Your task to perform on an android device: Go to Maps Image 0: 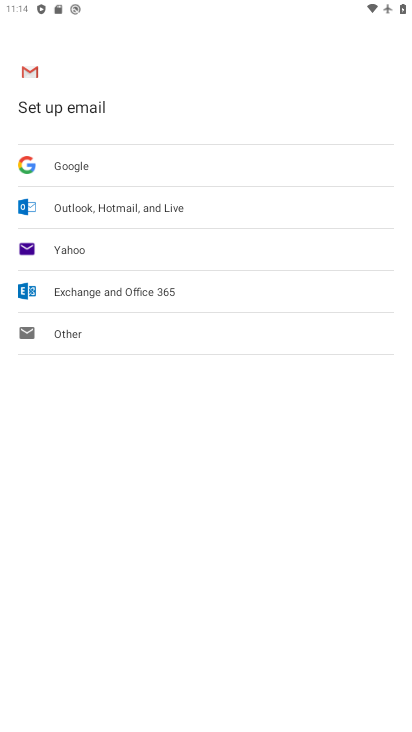
Step 0: press home button
Your task to perform on an android device: Go to Maps Image 1: 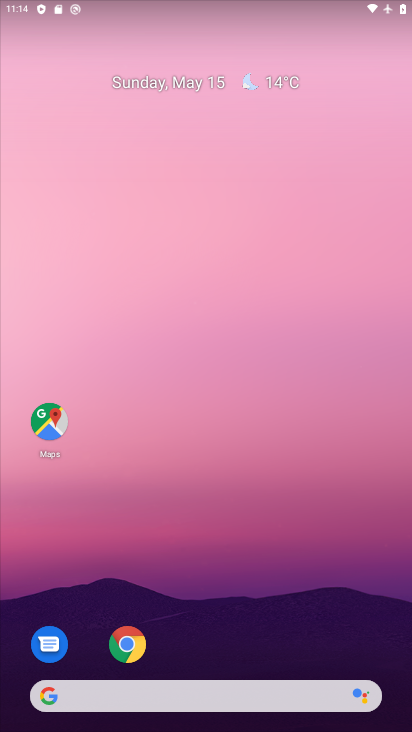
Step 1: click (49, 429)
Your task to perform on an android device: Go to Maps Image 2: 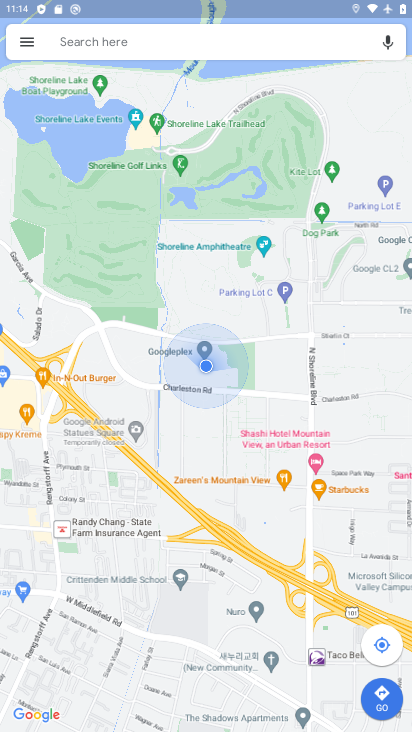
Step 2: task complete